Your task to perform on an android device: Turn on the flashlight Image 0: 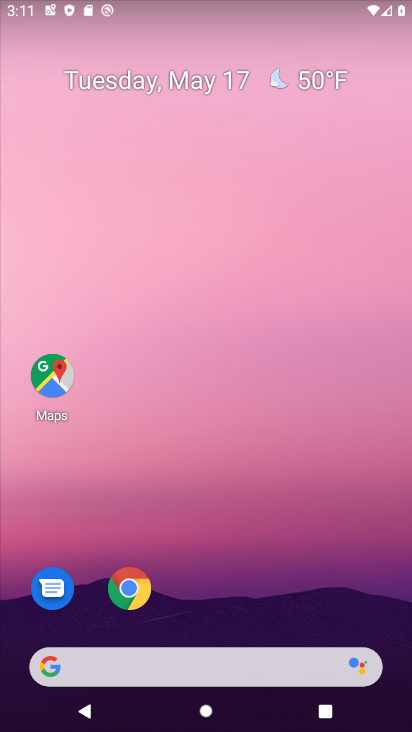
Step 0: drag from (275, 9) to (287, 609)
Your task to perform on an android device: Turn on the flashlight Image 1: 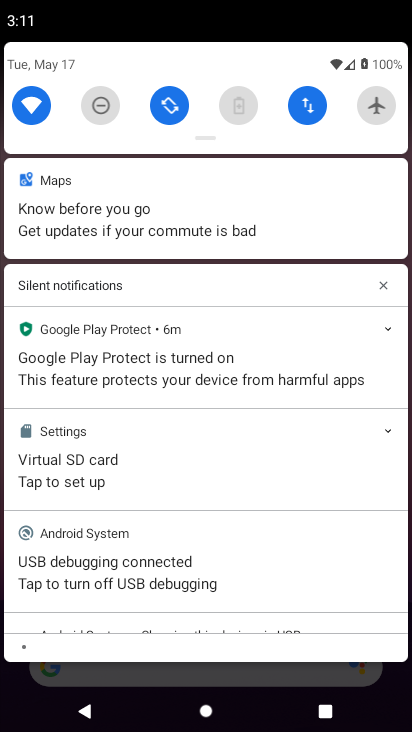
Step 1: task complete